Your task to perform on an android device: Open Google Maps and go to "Timeline" Image 0: 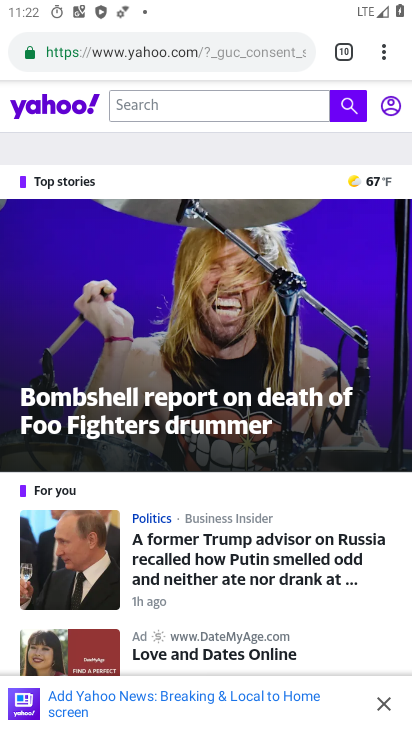
Step 0: press home button
Your task to perform on an android device: Open Google Maps and go to "Timeline" Image 1: 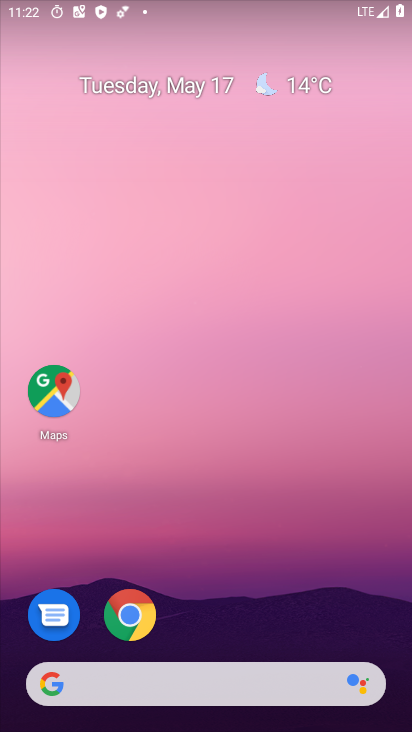
Step 1: drag from (173, 686) to (223, 168)
Your task to perform on an android device: Open Google Maps and go to "Timeline" Image 2: 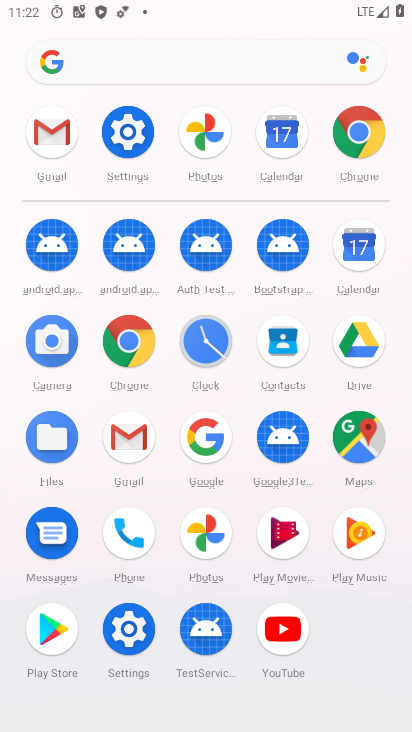
Step 2: click (354, 443)
Your task to perform on an android device: Open Google Maps and go to "Timeline" Image 3: 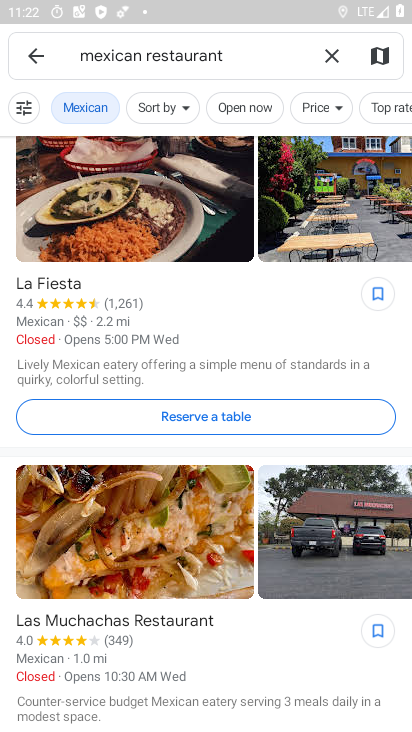
Step 3: click (36, 54)
Your task to perform on an android device: Open Google Maps and go to "Timeline" Image 4: 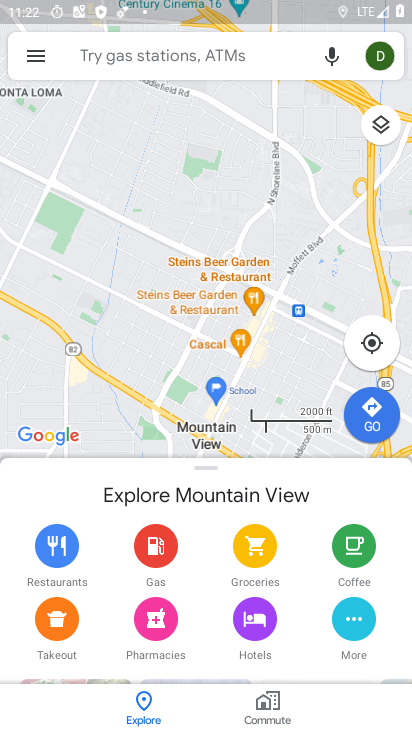
Step 4: click (41, 59)
Your task to perform on an android device: Open Google Maps and go to "Timeline" Image 5: 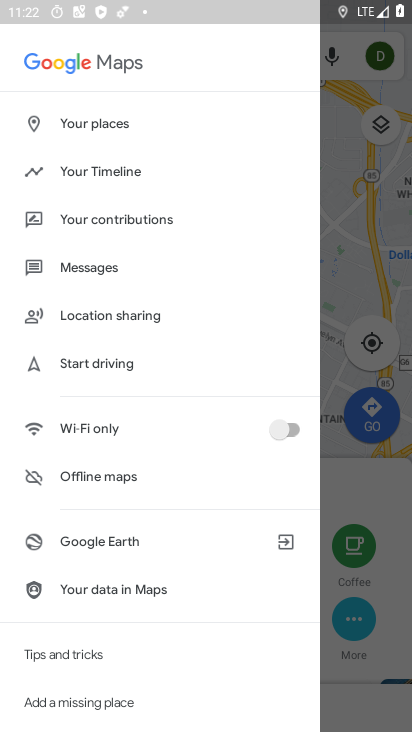
Step 5: click (117, 175)
Your task to perform on an android device: Open Google Maps and go to "Timeline" Image 6: 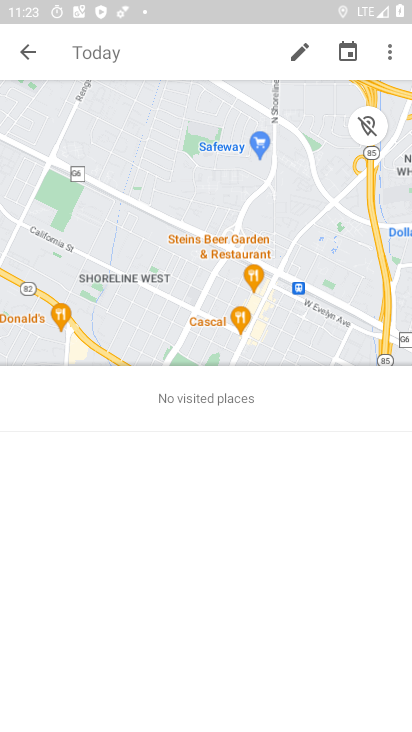
Step 6: task complete